Your task to perform on an android device: Check the weather Image 0: 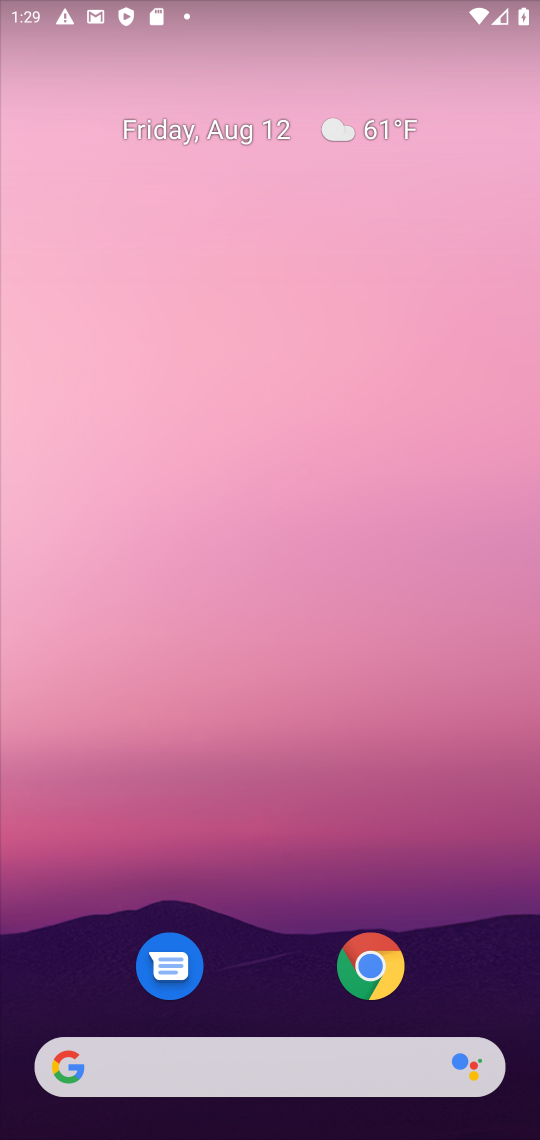
Step 0: click (377, 125)
Your task to perform on an android device: Check the weather Image 1: 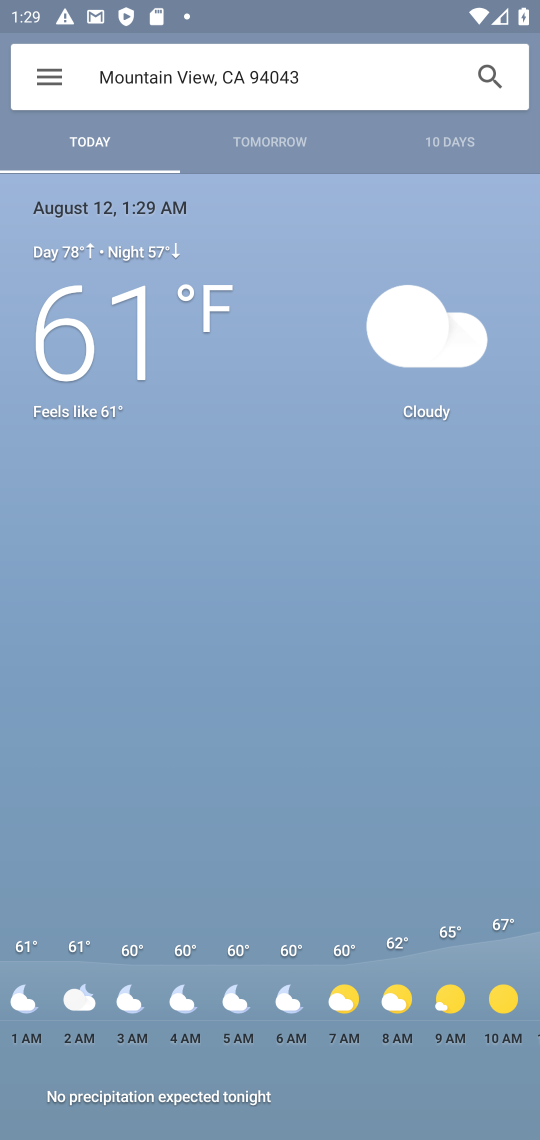
Step 1: task complete